Your task to perform on an android device: Open settings on Google Maps Image 0: 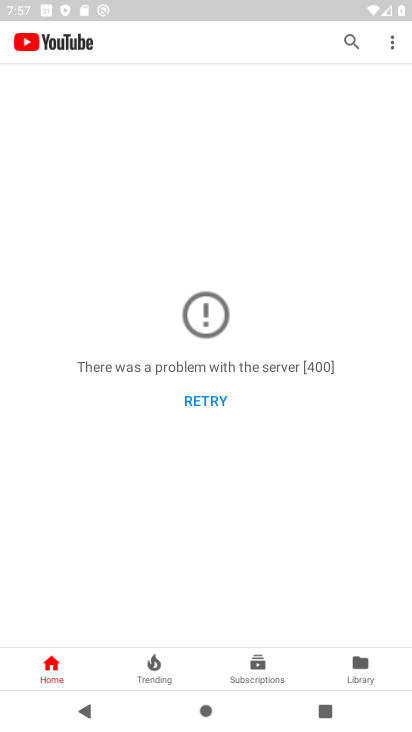
Step 0: press home button
Your task to perform on an android device: Open settings on Google Maps Image 1: 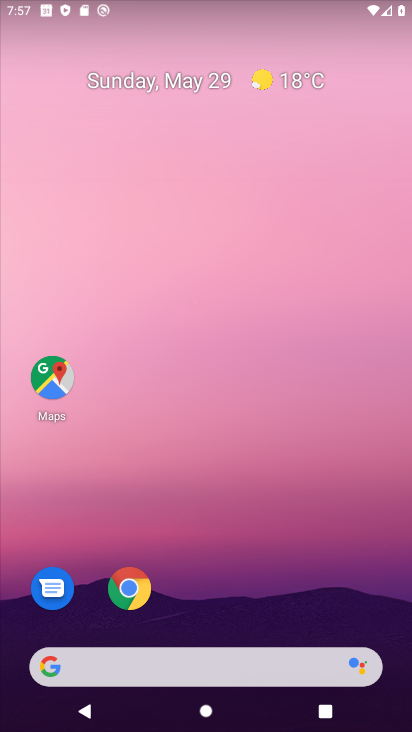
Step 1: click (51, 376)
Your task to perform on an android device: Open settings on Google Maps Image 2: 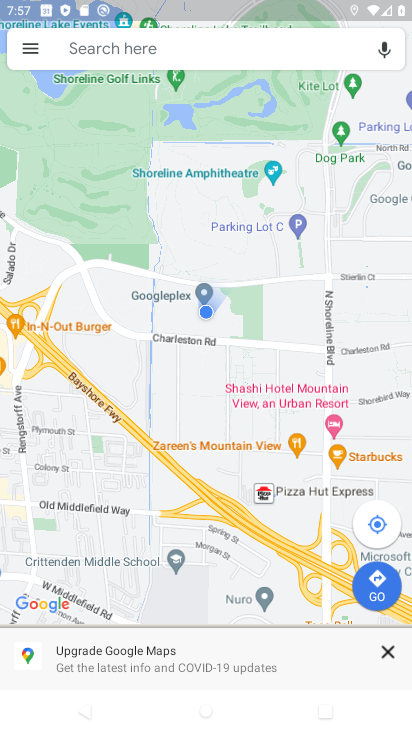
Step 2: click (28, 49)
Your task to perform on an android device: Open settings on Google Maps Image 3: 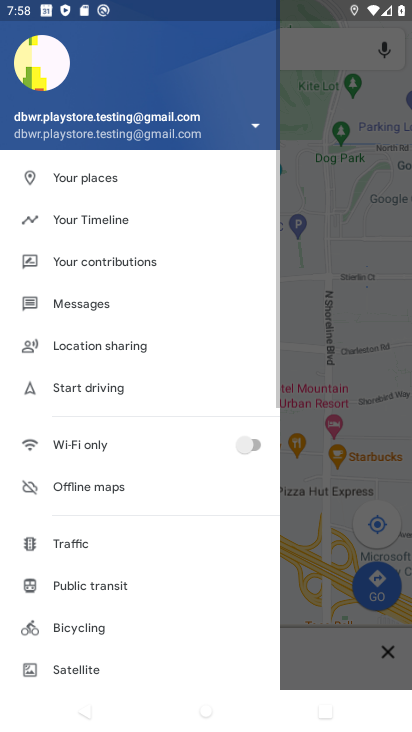
Step 3: drag from (112, 553) to (135, 363)
Your task to perform on an android device: Open settings on Google Maps Image 4: 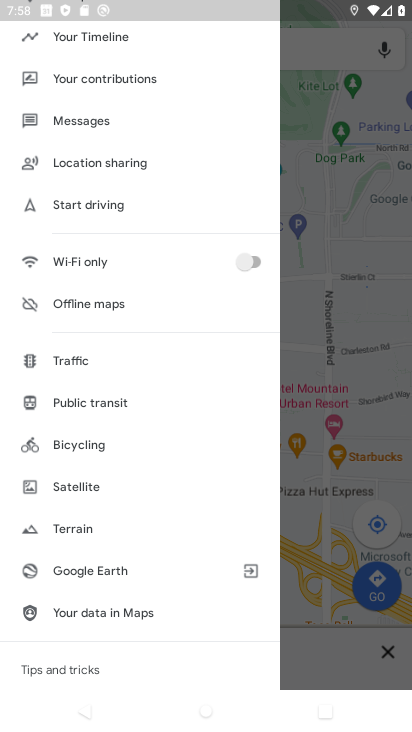
Step 4: drag from (68, 668) to (117, 378)
Your task to perform on an android device: Open settings on Google Maps Image 5: 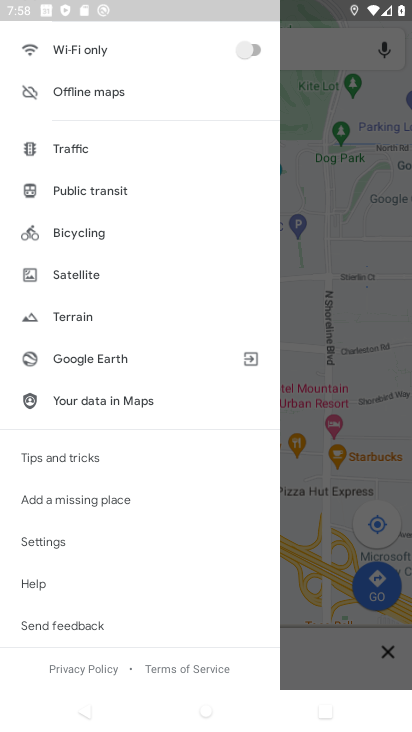
Step 5: click (56, 544)
Your task to perform on an android device: Open settings on Google Maps Image 6: 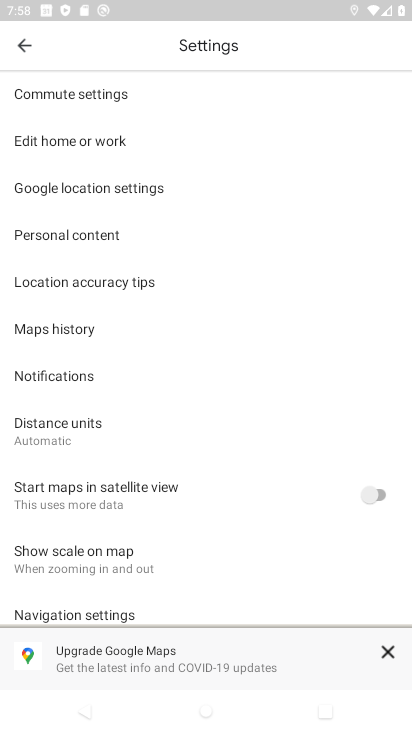
Step 6: task complete